Your task to perform on an android device: toggle sleep mode Image 0: 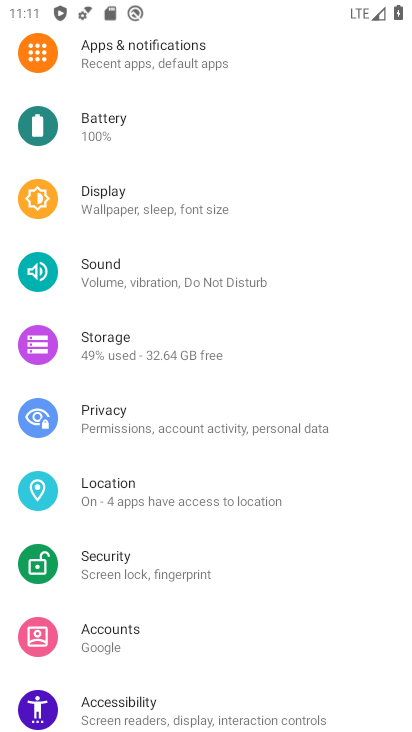
Step 0: press home button
Your task to perform on an android device: toggle sleep mode Image 1: 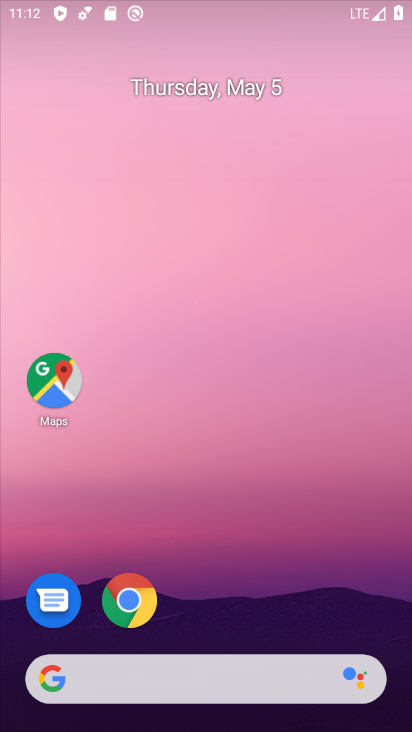
Step 1: drag from (389, 627) to (350, 61)
Your task to perform on an android device: toggle sleep mode Image 2: 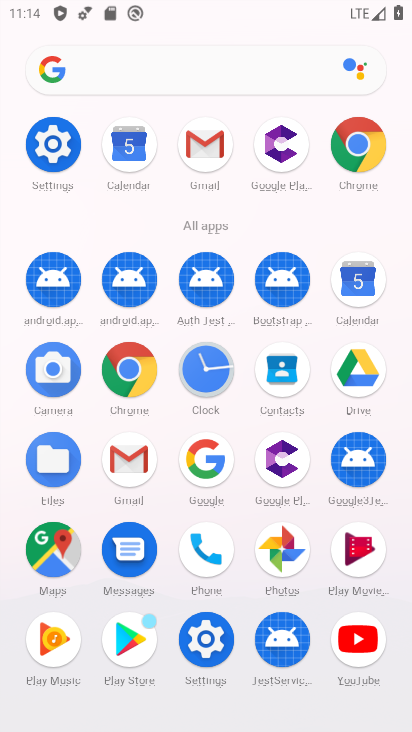
Step 2: click (61, 142)
Your task to perform on an android device: toggle sleep mode Image 3: 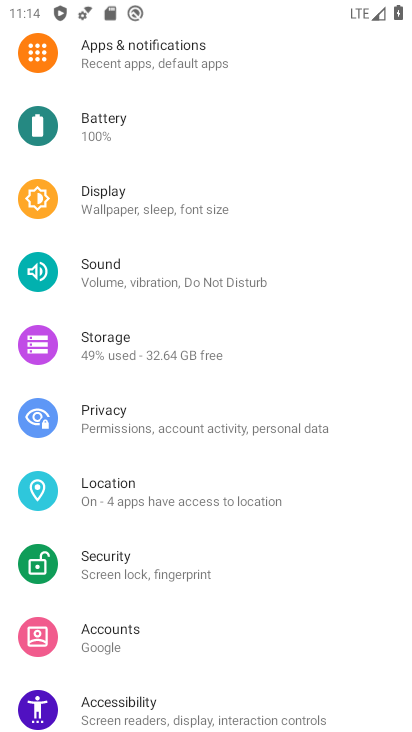
Step 3: task complete